Your task to perform on an android device: Do I have any events this weekend? Image 0: 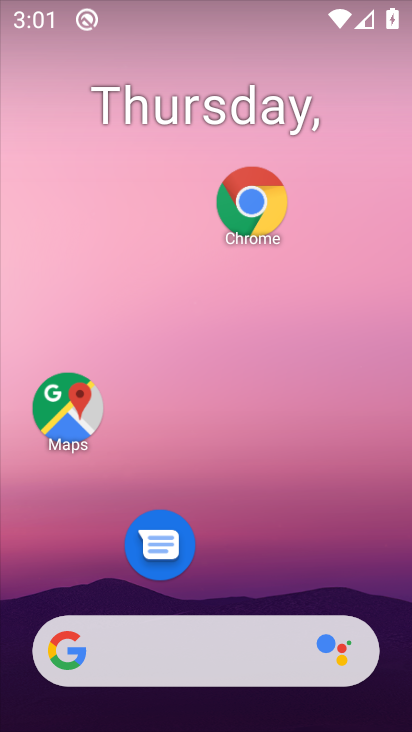
Step 0: drag from (233, 511) to (233, 271)
Your task to perform on an android device: Do I have any events this weekend? Image 1: 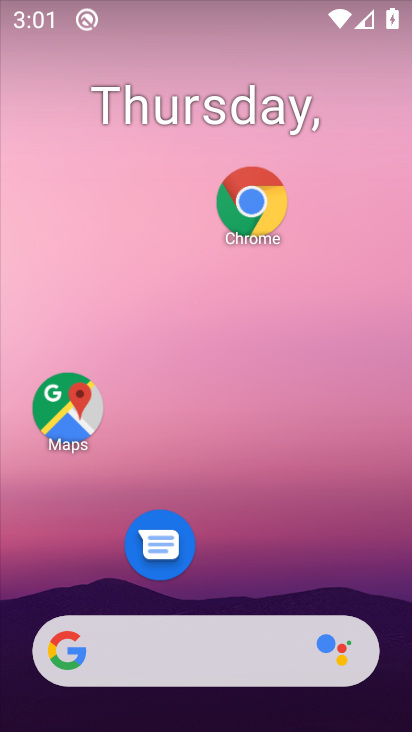
Step 1: drag from (181, 554) to (164, 165)
Your task to perform on an android device: Do I have any events this weekend? Image 2: 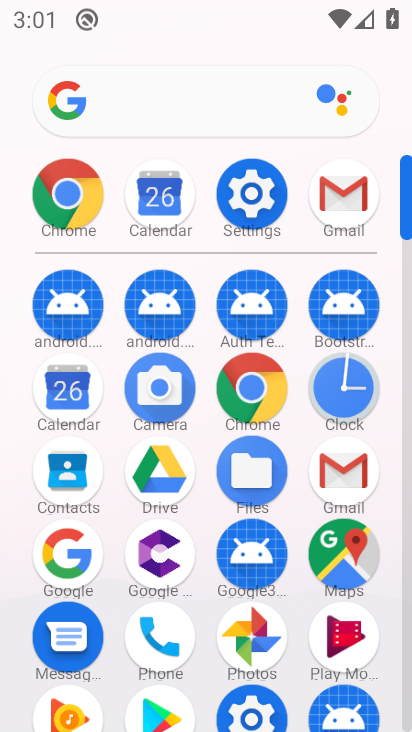
Step 2: click (95, 398)
Your task to perform on an android device: Do I have any events this weekend? Image 3: 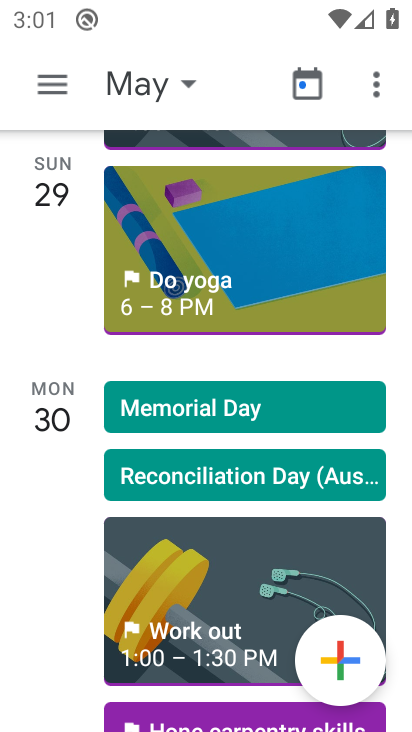
Step 3: click (140, 90)
Your task to perform on an android device: Do I have any events this weekend? Image 4: 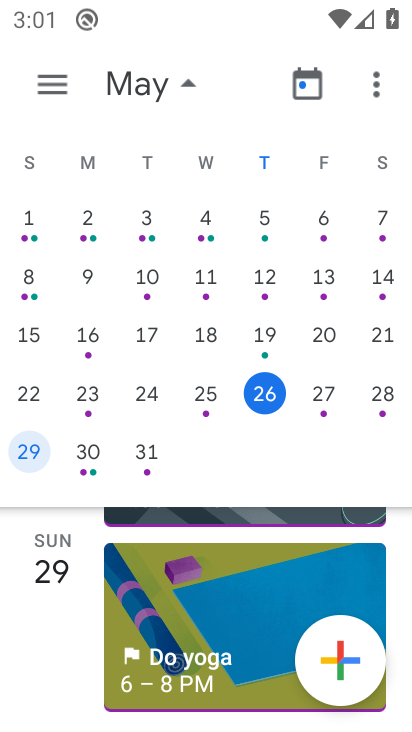
Step 4: click (26, 454)
Your task to perform on an android device: Do I have any events this weekend? Image 5: 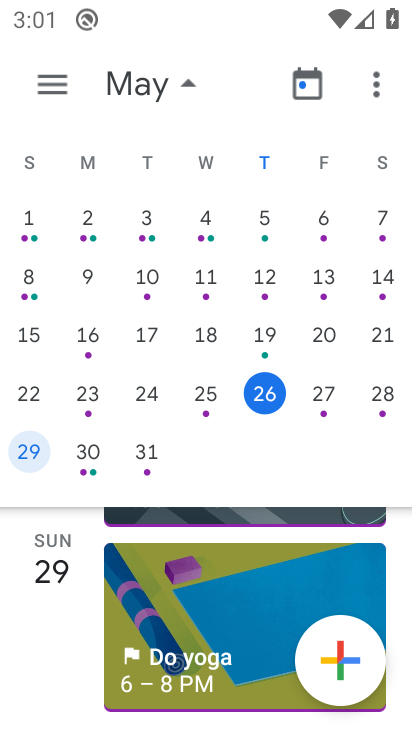
Step 5: drag from (223, 641) to (223, 412)
Your task to perform on an android device: Do I have any events this weekend? Image 6: 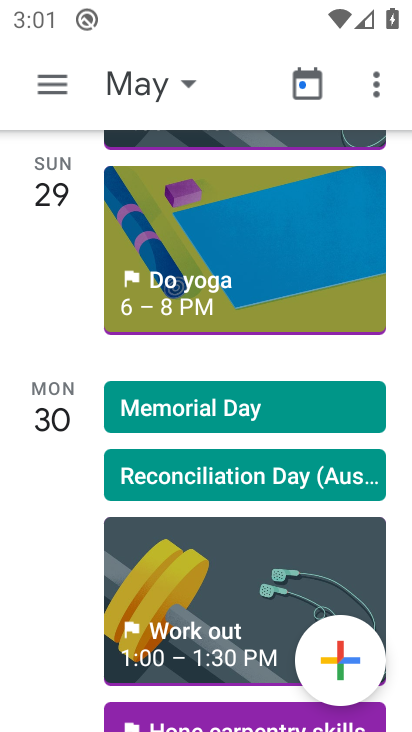
Step 6: click (237, 262)
Your task to perform on an android device: Do I have any events this weekend? Image 7: 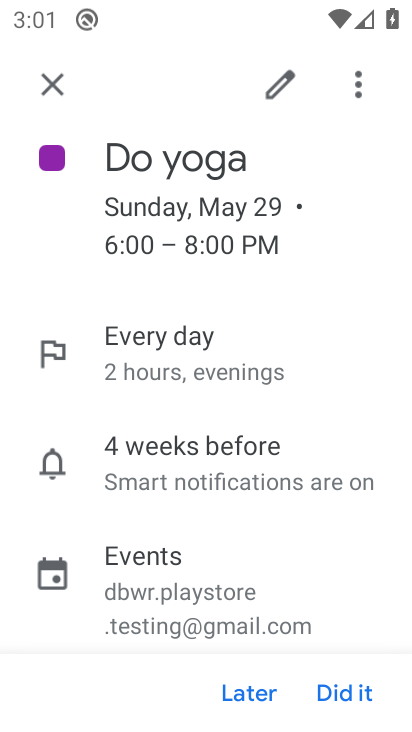
Step 7: task complete